Your task to perform on an android device: Find coffee shops on Maps Image 0: 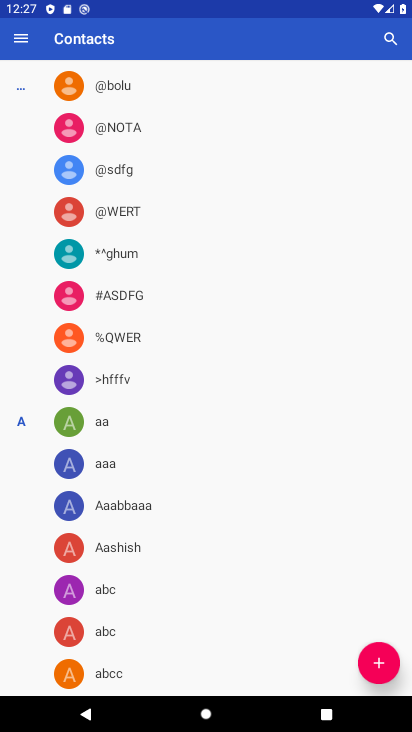
Step 0: press home button
Your task to perform on an android device: Find coffee shops on Maps Image 1: 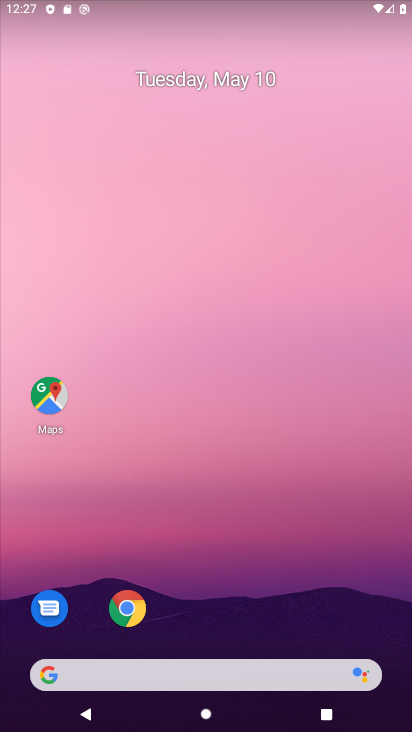
Step 1: click (46, 401)
Your task to perform on an android device: Find coffee shops on Maps Image 2: 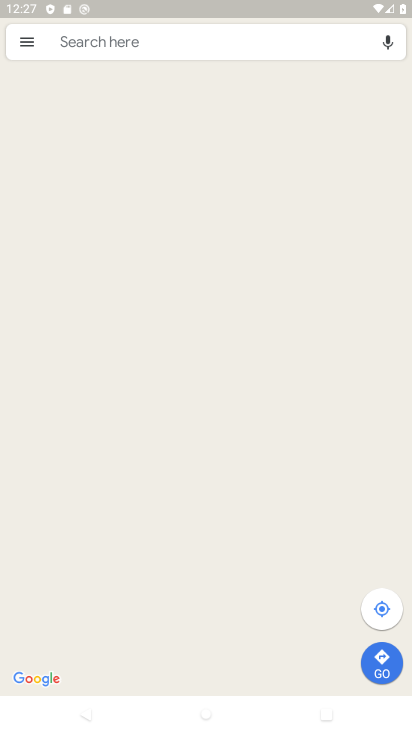
Step 2: click (153, 53)
Your task to perform on an android device: Find coffee shops on Maps Image 3: 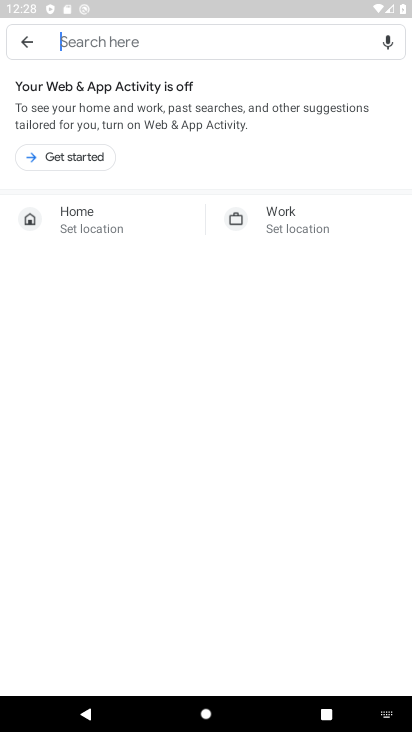
Step 3: click (65, 151)
Your task to perform on an android device: Find coffee shops on Maps Image 4: 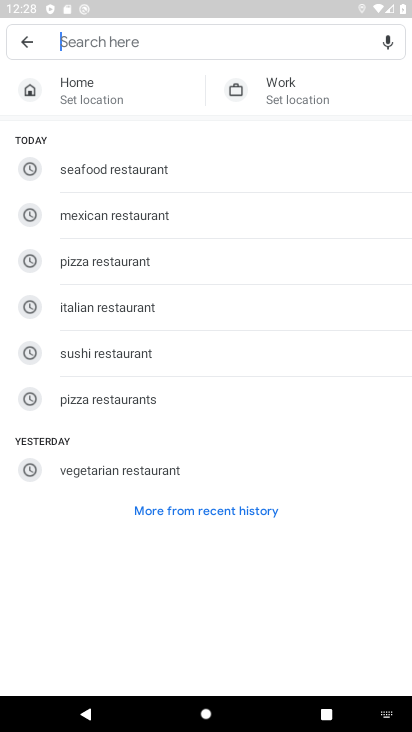
Step 4: type "coffee shop"
Your task to perform on an android device: Find coffee shops on Maps Image 5: 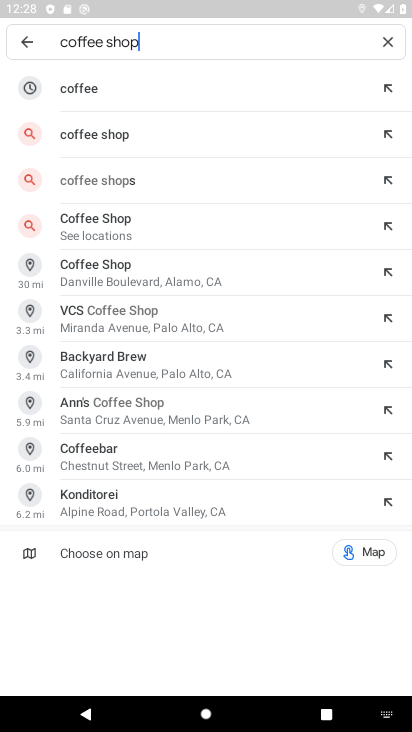
Step 5: click (124, 132)
Your task to perform on an android device: Find coffee shops on Maps Image 6: 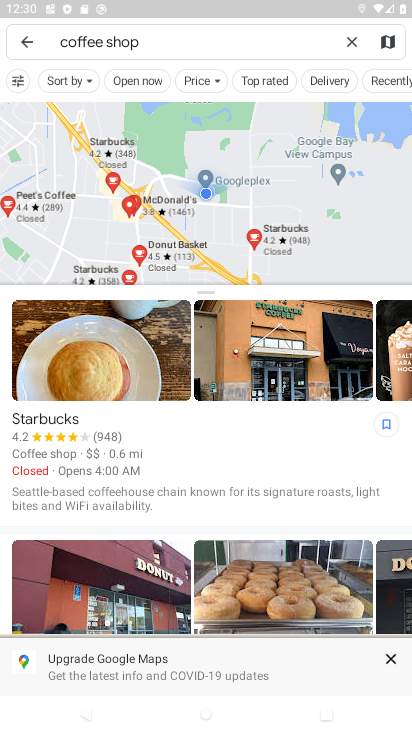
Step 6: task complete